Your task to perform on an android device: Open battery settings Image 0: 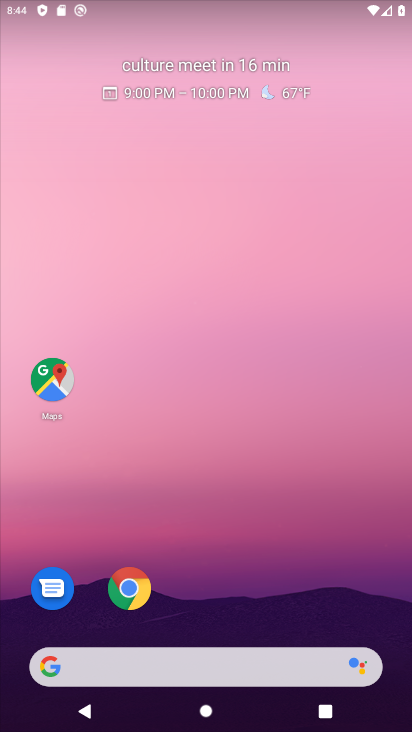
Step 0: drag from (275, 478) to (274, 5)
Your task to perform on an android device: Open battery settings Image 1: 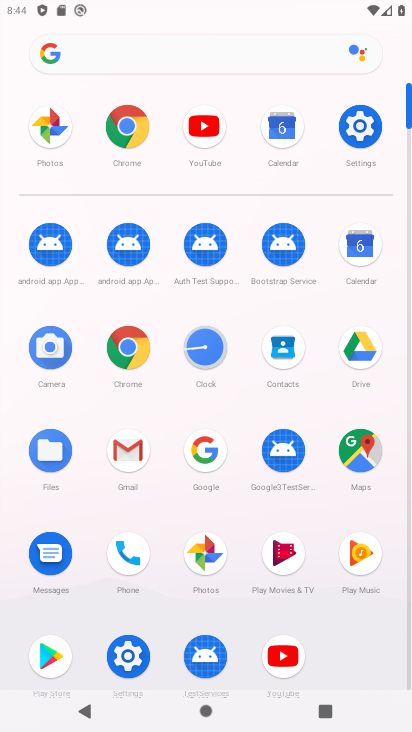
Step 1: click (358, 142)
Your task to perform on an android device: Open battery settings Image 2: 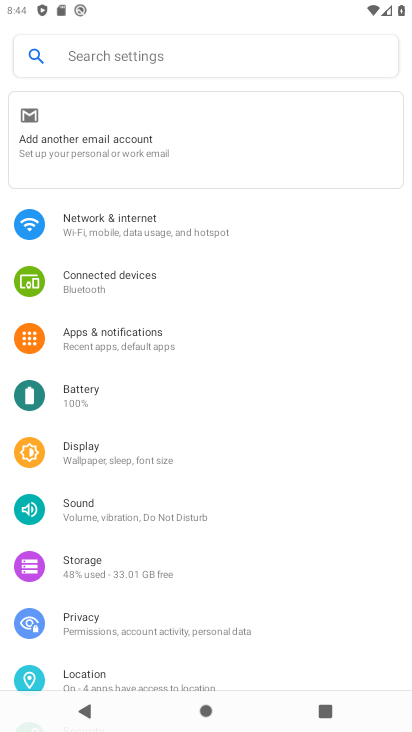
Step 2: drag from (259, 288) to (258, 614)
Your task to perform on an android device: Open battery settings Image 3: 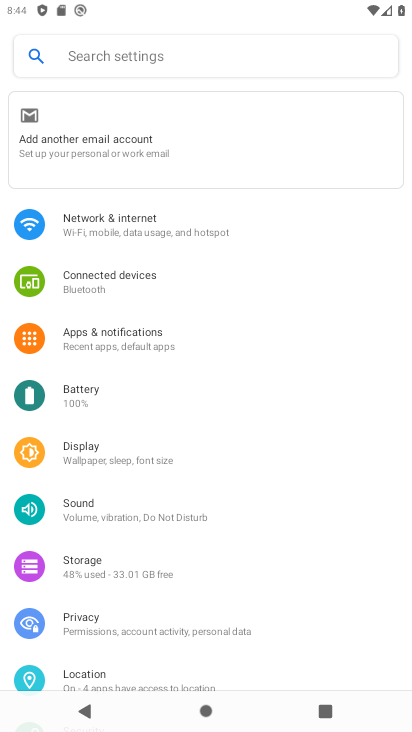
Step 3: click (92, 394)
Your task to perform on an android device: Open battery settings Image 4: 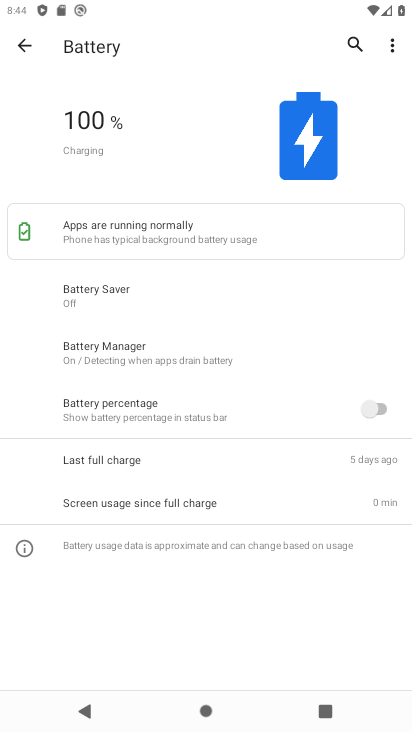
Step 4: task complete